Your task to perform on an android device: Open Yahoo.com Image 0: 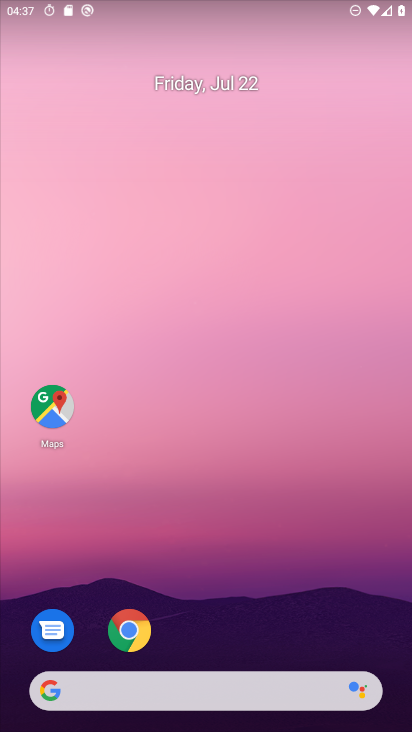
Step 0: click (136, 619)
Your task to perform on an android device: Open Yahoo.com Image 1: 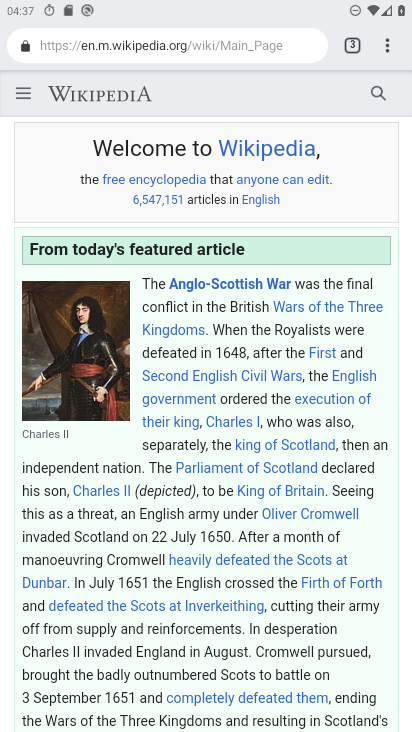
Step 1: click (188, 44)
Your task to perform on an android device: Open Yahoo.com Image 2: 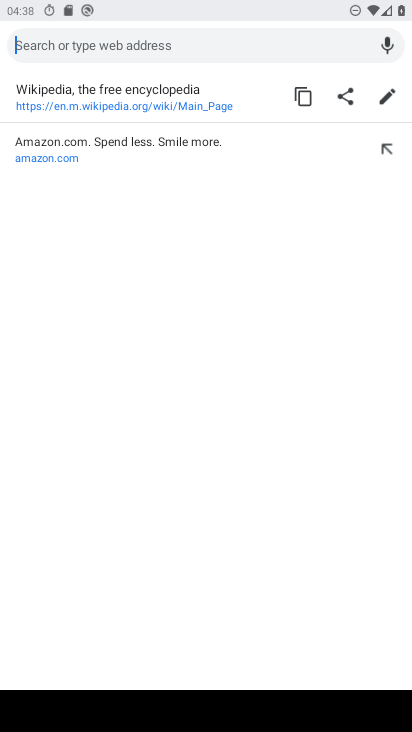
Step 2: type "yahoo.com"
Your task to perform on an android device: Open Yahoo.com Image 3: 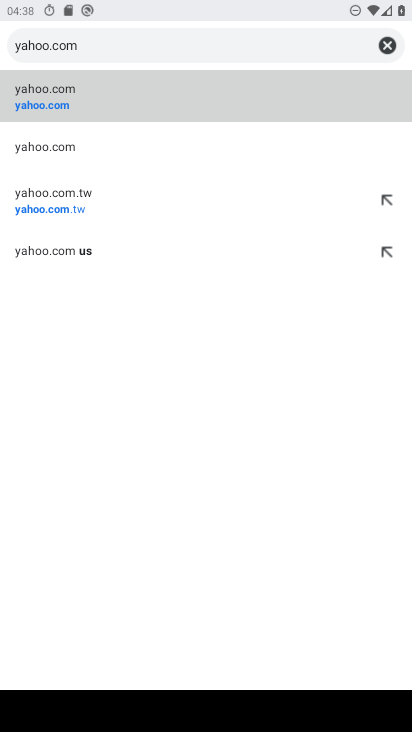
Step 3: click (132, 103)
Your task to perform on an android device: Open Yahoo.com Image 4: 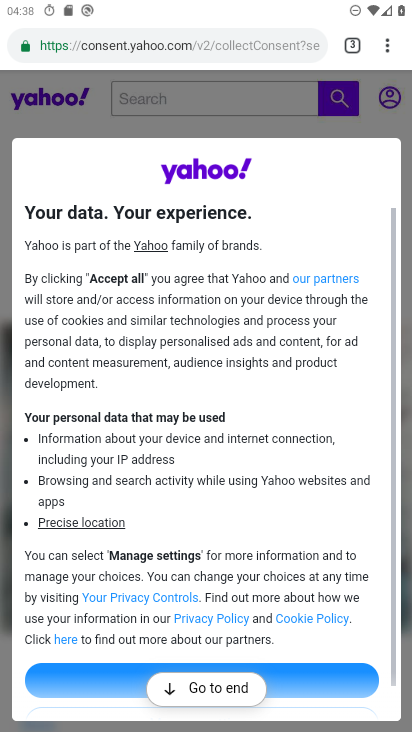
Step 4: task complete